Your task to perform on an android device: Check the weather Image 0: 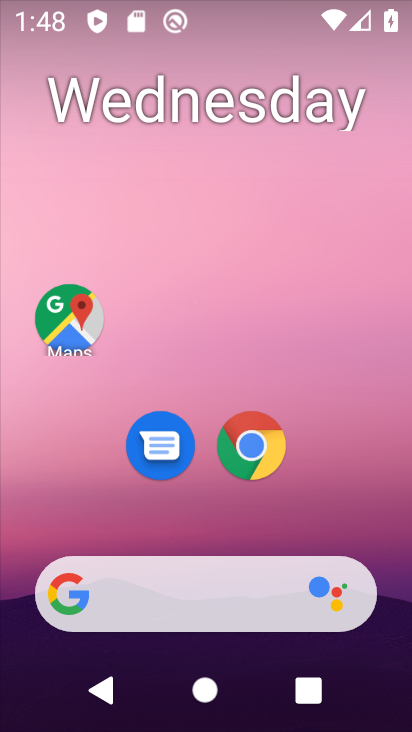
Step 0: click (260, 615)
Your task to perform on an android device: Check the weather Image 1: 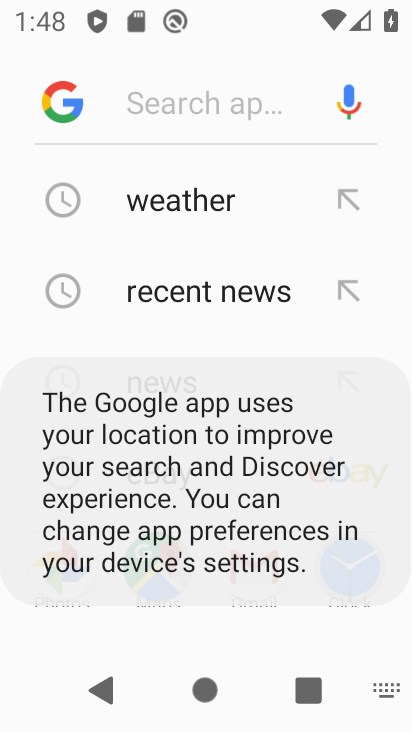
Step 1: click (173, 200)
Your task to perform on an android device: Check the weather Image 2: 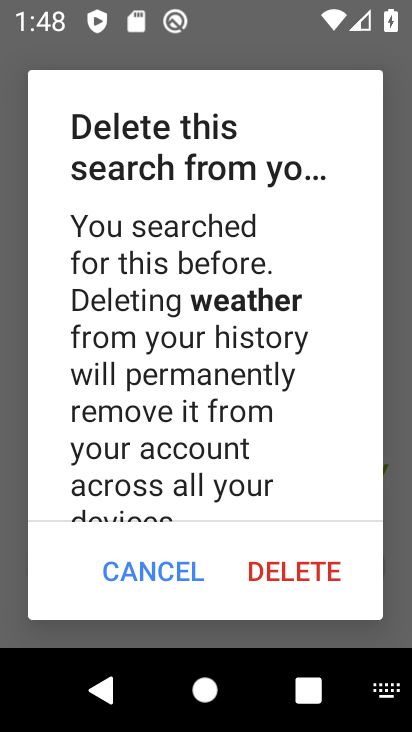
Step 2: click (170, 580)
Your task to perform on an android device: Check the weather Image 3: 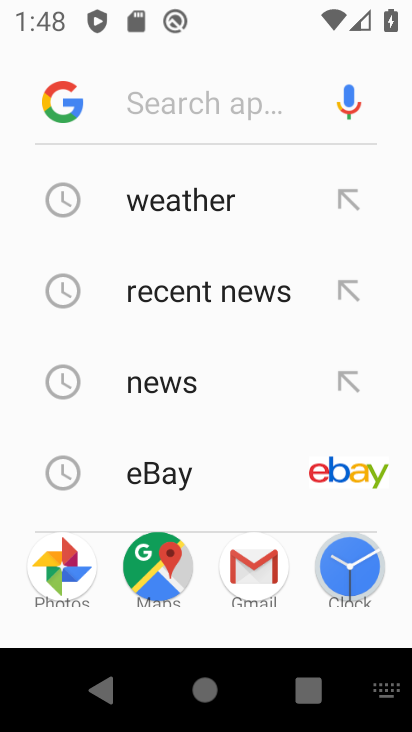
Step 3: click (197, 202)
Your task to perform on an android device: Check the weather Image 4: 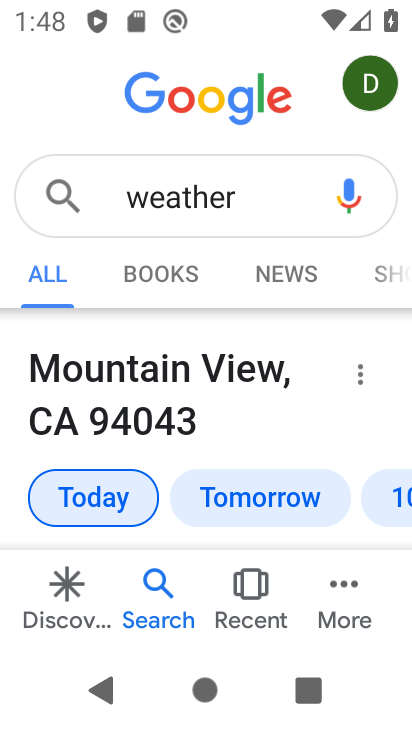
Step 4: task complete